Your task to perform on an android device: Find coffee shops on Maps Image 0: 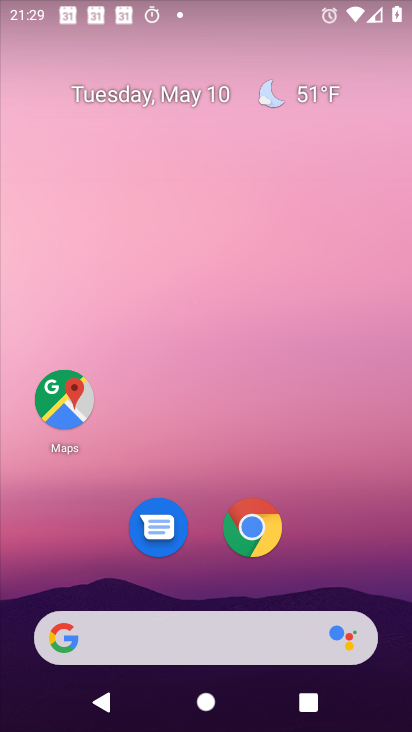
Step 0: click (68, 401)
Your task to perform on an android device: Find coffee shops on Maps Image 1: 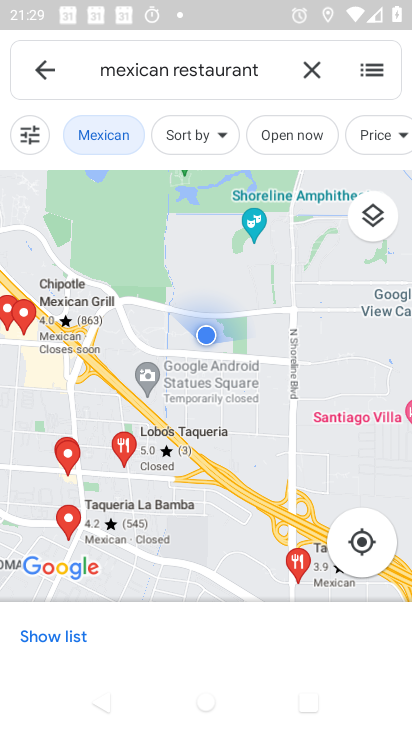
Step 1: click (303, 69)
Your task to perform on an android device: Find coffee shops on Maps Image 2: 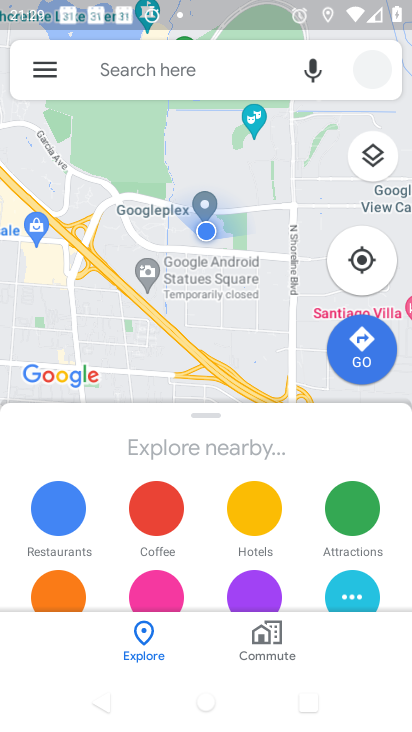
Step 2: click (194, 79)
Your task to perform on an android device: Find coffee shops on Maps Image 3: 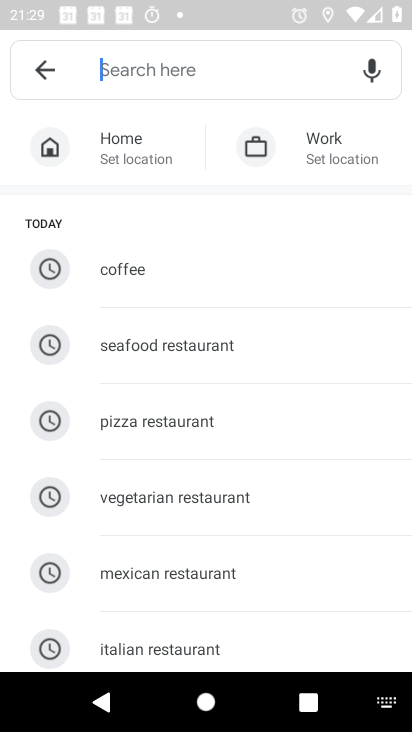
Step 3: click (111, 276)
Your task to perform on an android device: Find coffee shops on Maps Image 4: 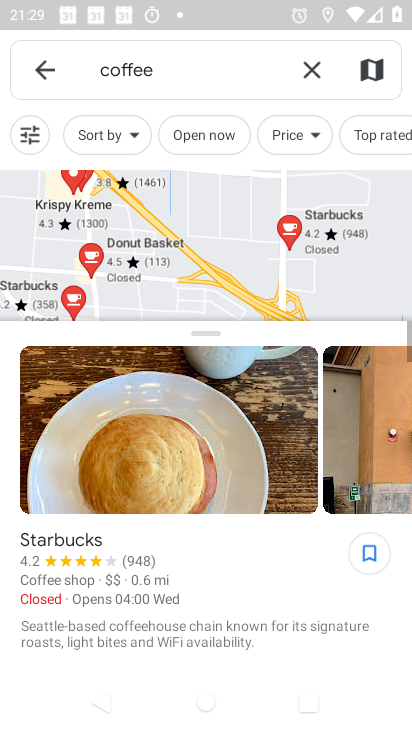
Step 4: task complete